Your task to perform on an android device: allow cookies in the chrome app Image 0: 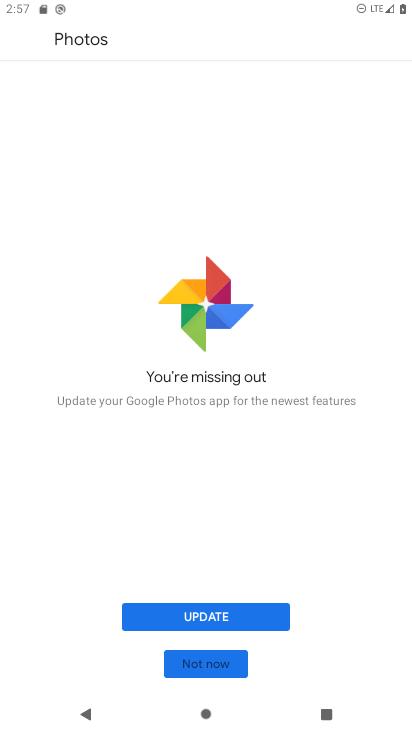
Step 0: press home button
Your task to perform on an android device: allow cookies in the chrome app Image 1: 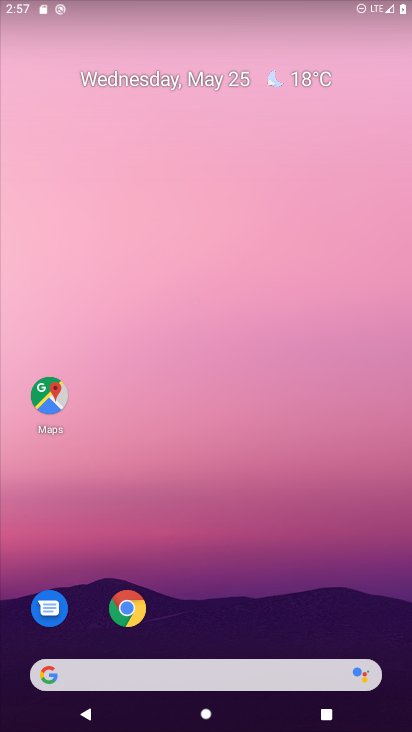
Step 1: click (128, 609)
Your task to perform on an android device: allow cookies in the chrome app Image 2: 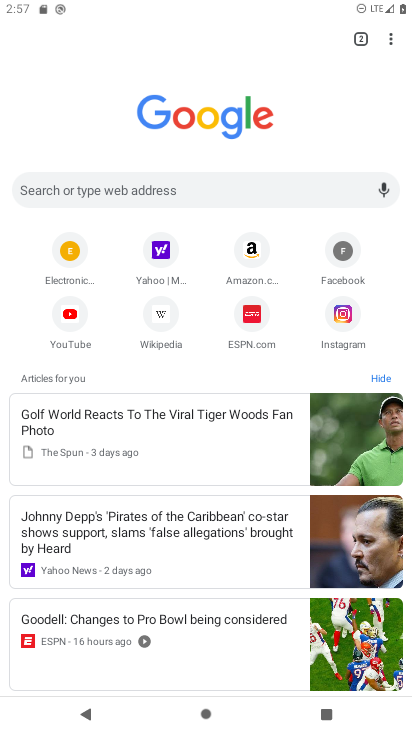
Step 2: click (387, 43)
Your task to perform on an android device: allow cookies in the chrome app Image 3: 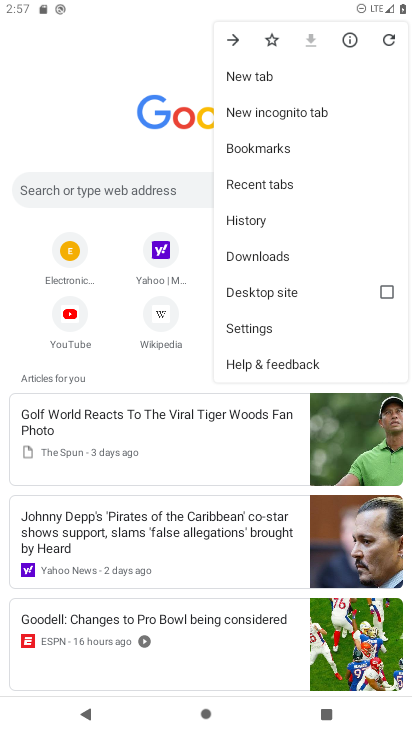
Step 3: click (250, 322)
Your task to perform on an android device: allow cookies in the chrome app Image 4: 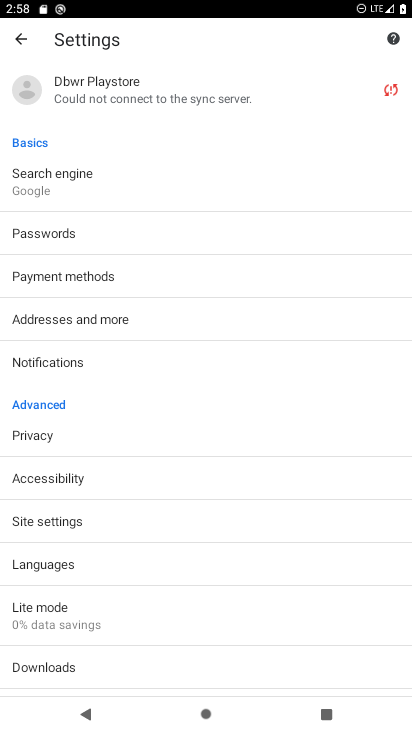
Step 4: click (69, 525)
Your task to perform on an android device: allow cookies in the chrome app Image 5: 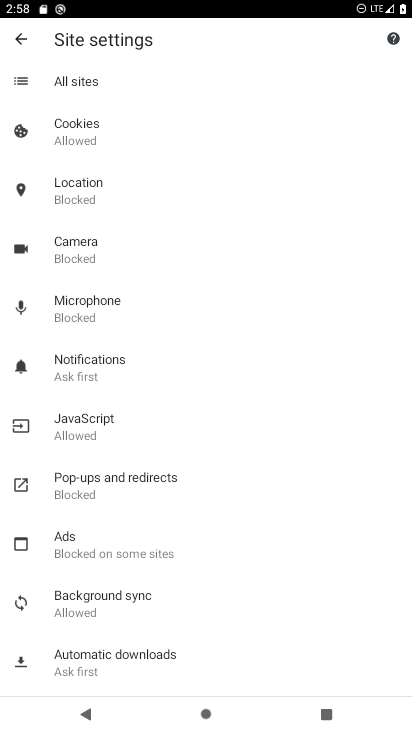
Step 5: click (73, 123)
Your task to perform on an android device: allow cookies in the chrome app Image 6: 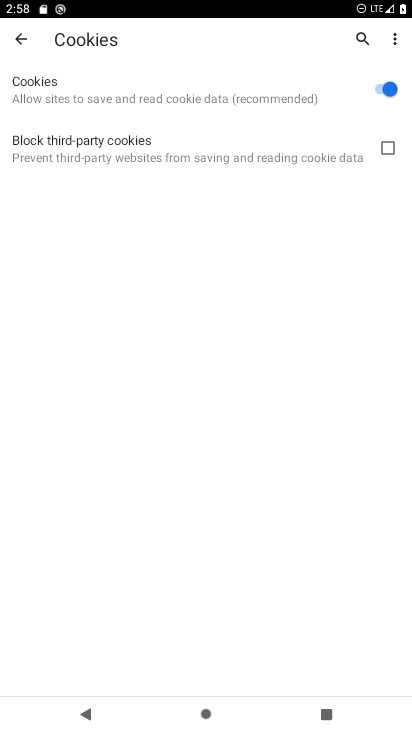
Step 6: task complete